Your task to perform on an android device: turn on javascript in the chrome app Image 0: 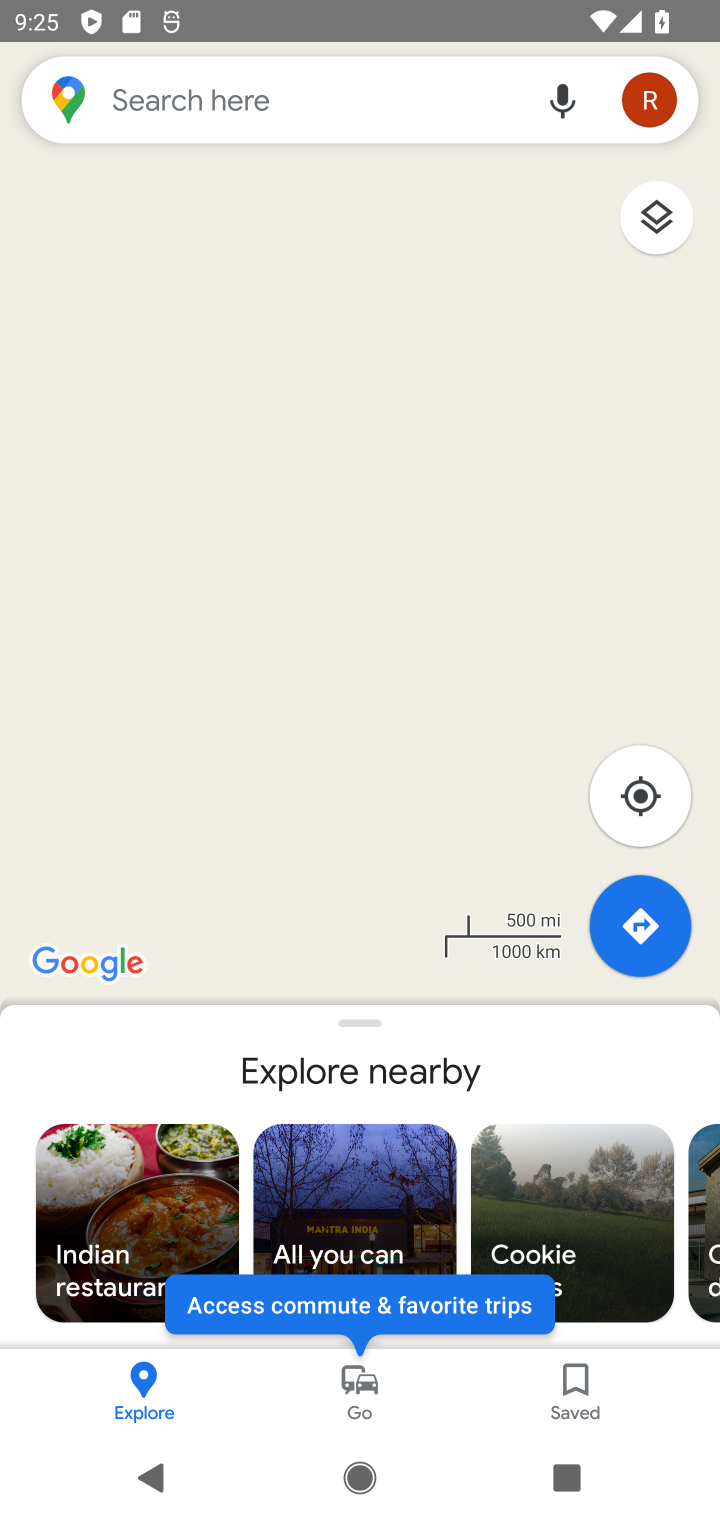
Step 0: press home button
Your task to perform on an android device: turn on javascript in the chrome app Image 1: 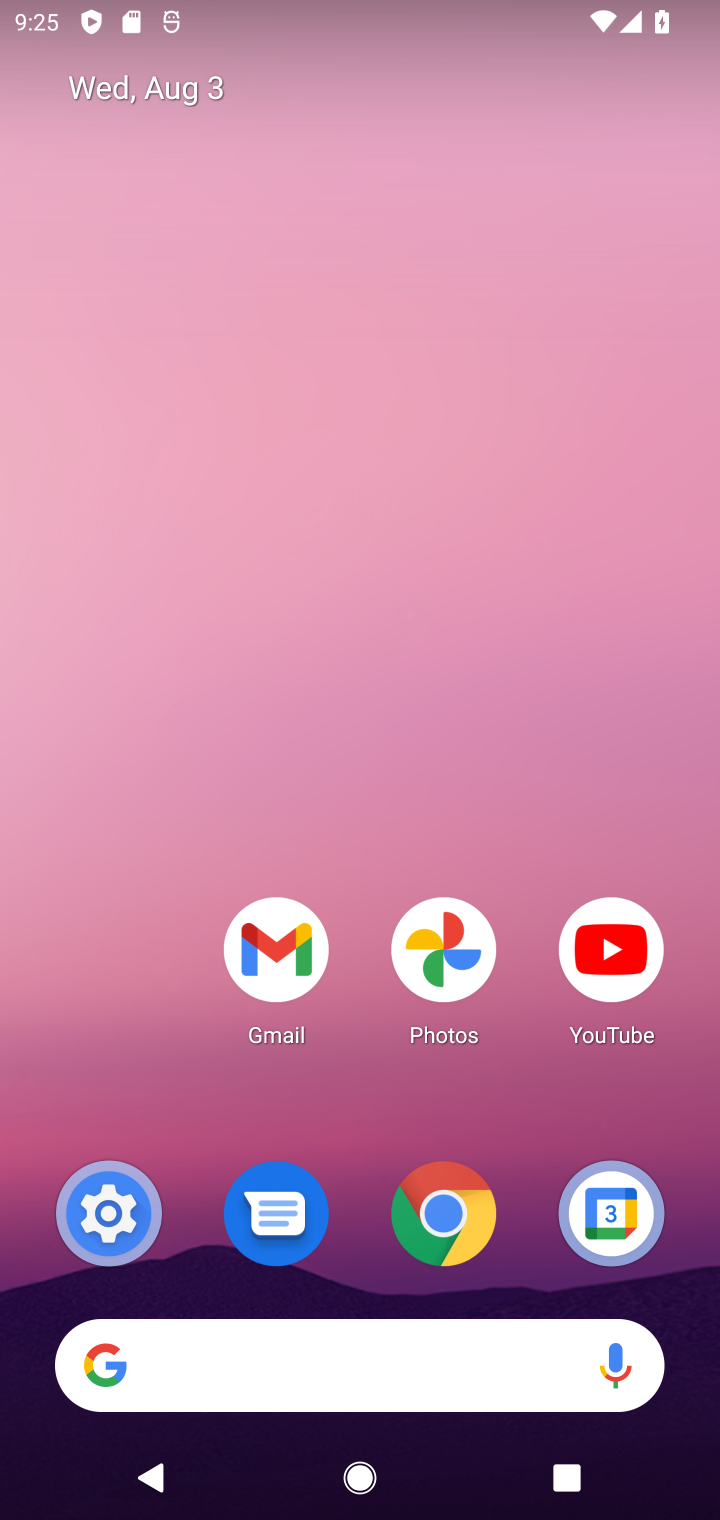
Step 1: click (97, 1206)
Your task to perform on an android device: turn on javascript in the chrome app Image 2: 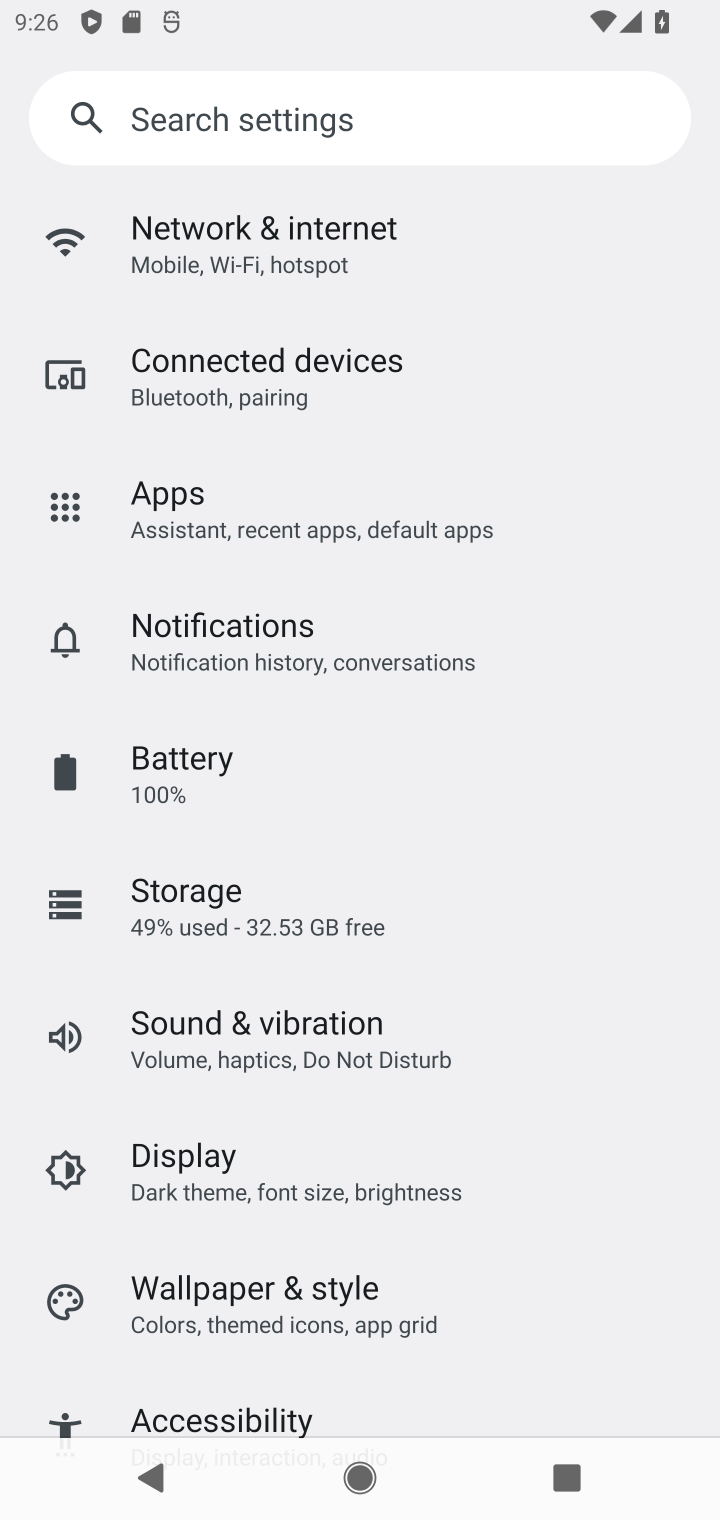
Step 2: press home button
Your task to perform on an android device: turn on javascript in the chrome app Image 3: 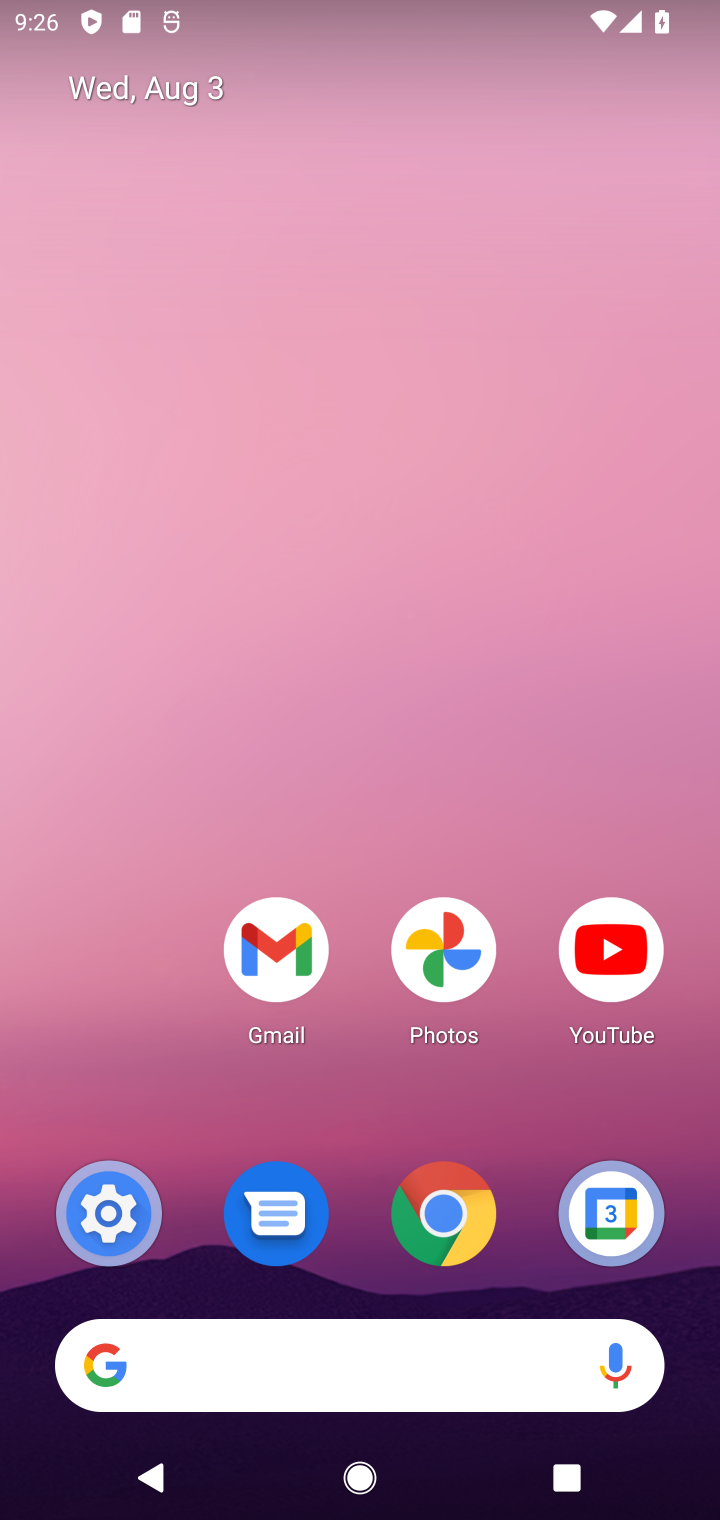
Step 3: click (459, 1189)
Your task to perform on an android device: turn on javascript in the chrome app Image 4: 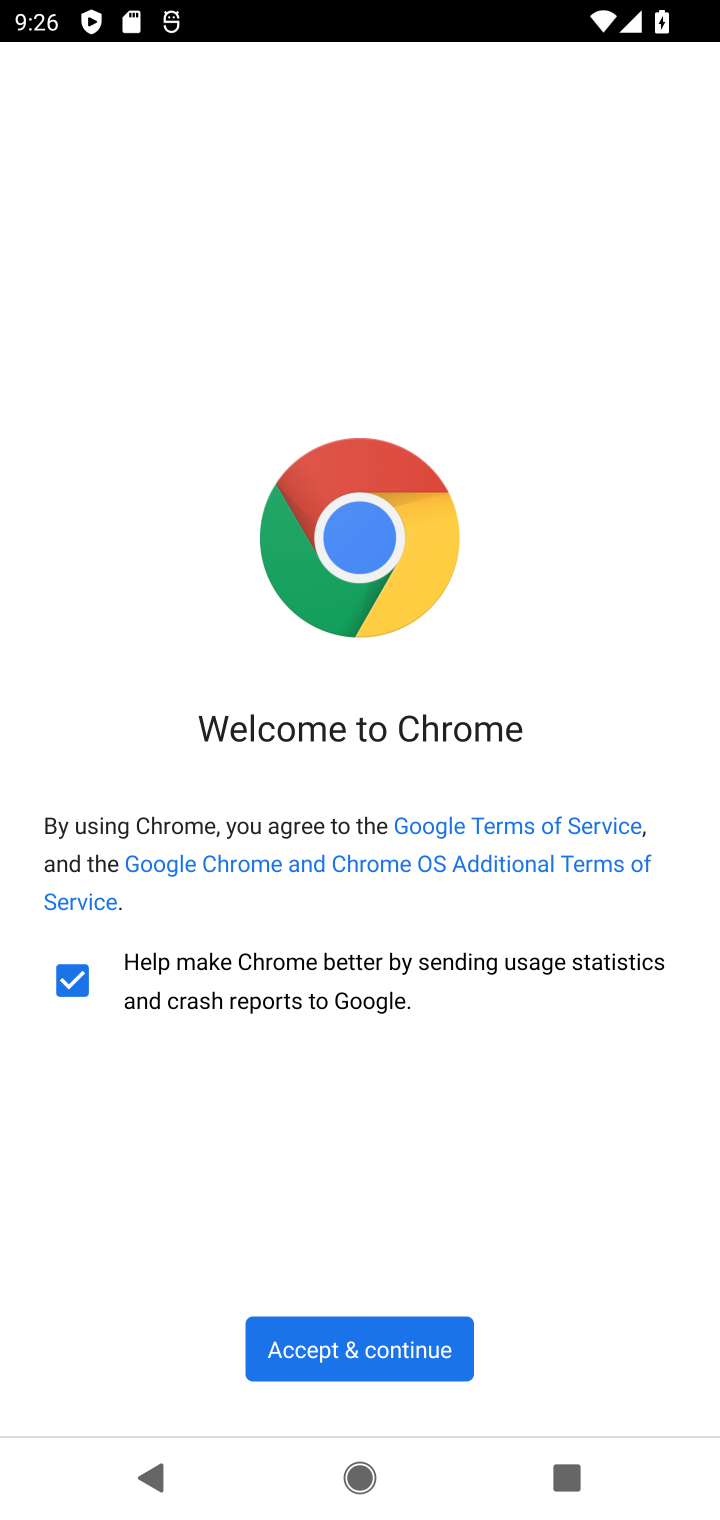
Step 4: click (367, 1348)
Your task to perform on an android device: turn on javascript in the chrome app Image 5: 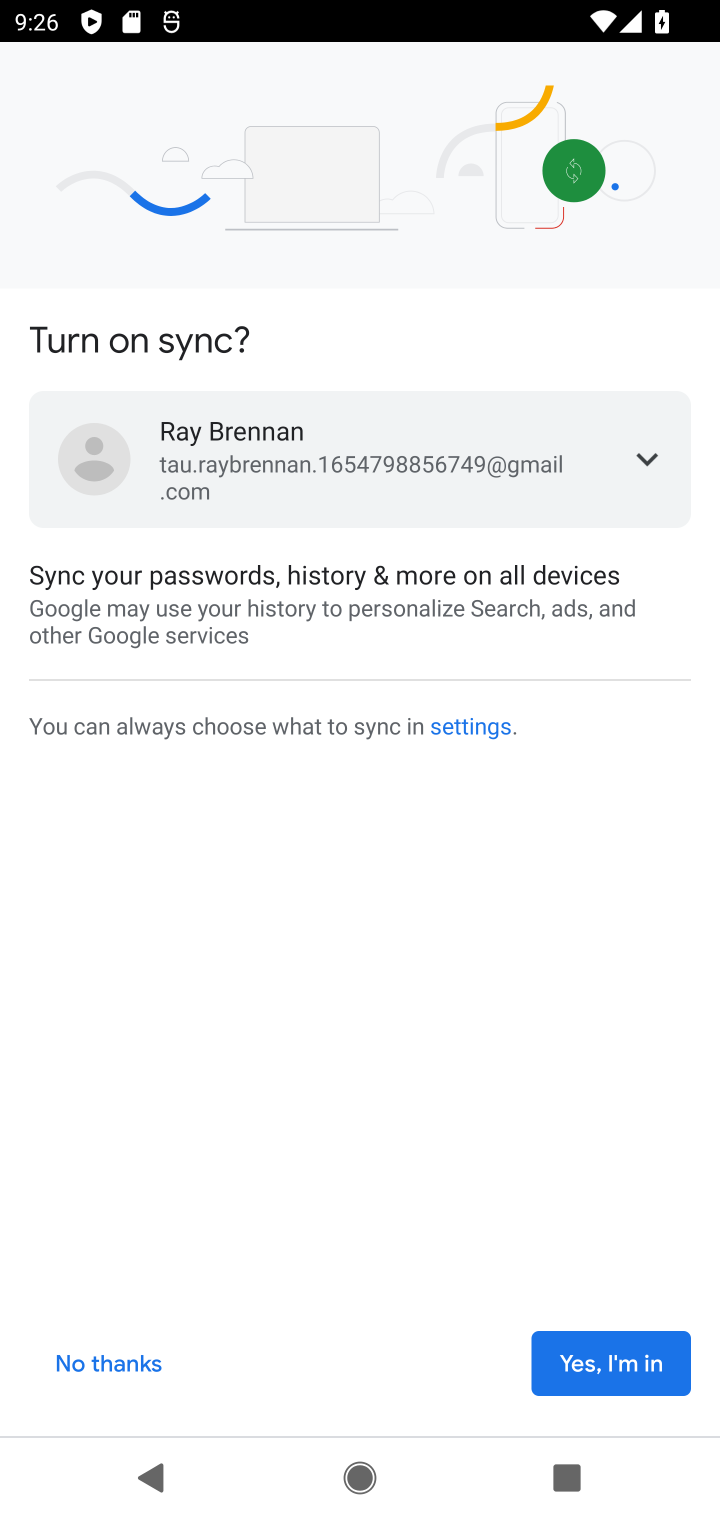
Step 5: click (563, 1378)
Your task to perform on an android device: turn on javascript in the chrome app Image 6: 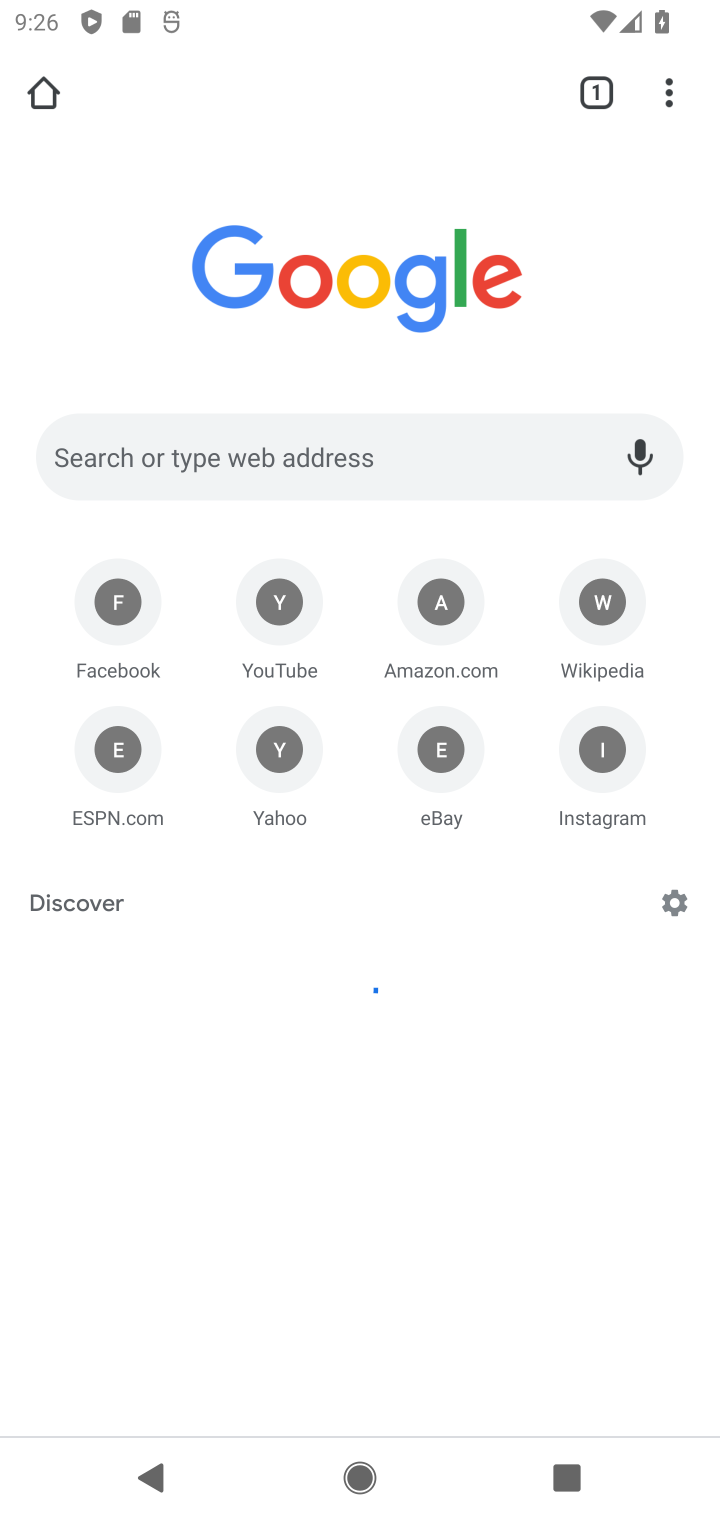
Step 6: click (636, 1365)
Your task to perform on an android device: turn on javascript in the chrome app Image 7: 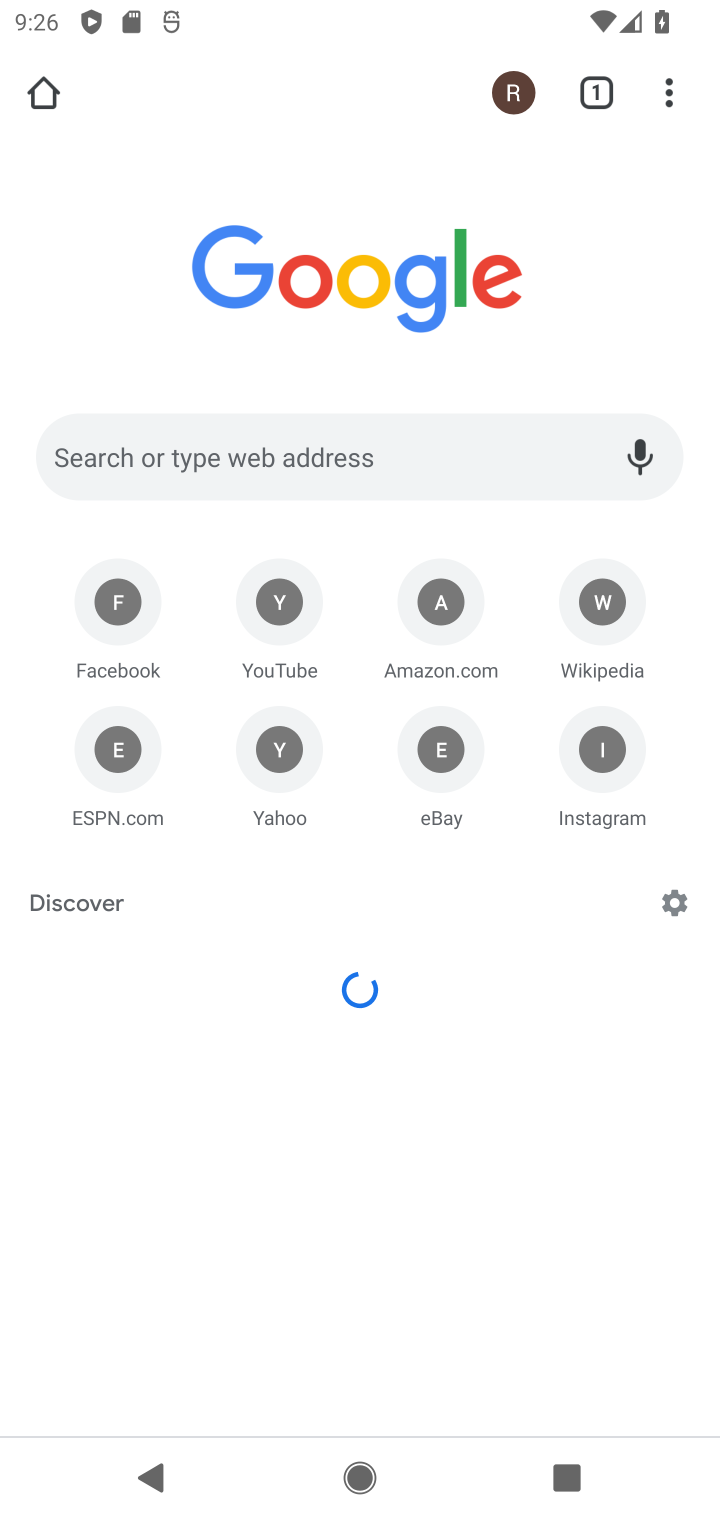
Step 7: click (683, 88)
Your task to perform on an android device: turn on javascript in the chrome app Image 8: 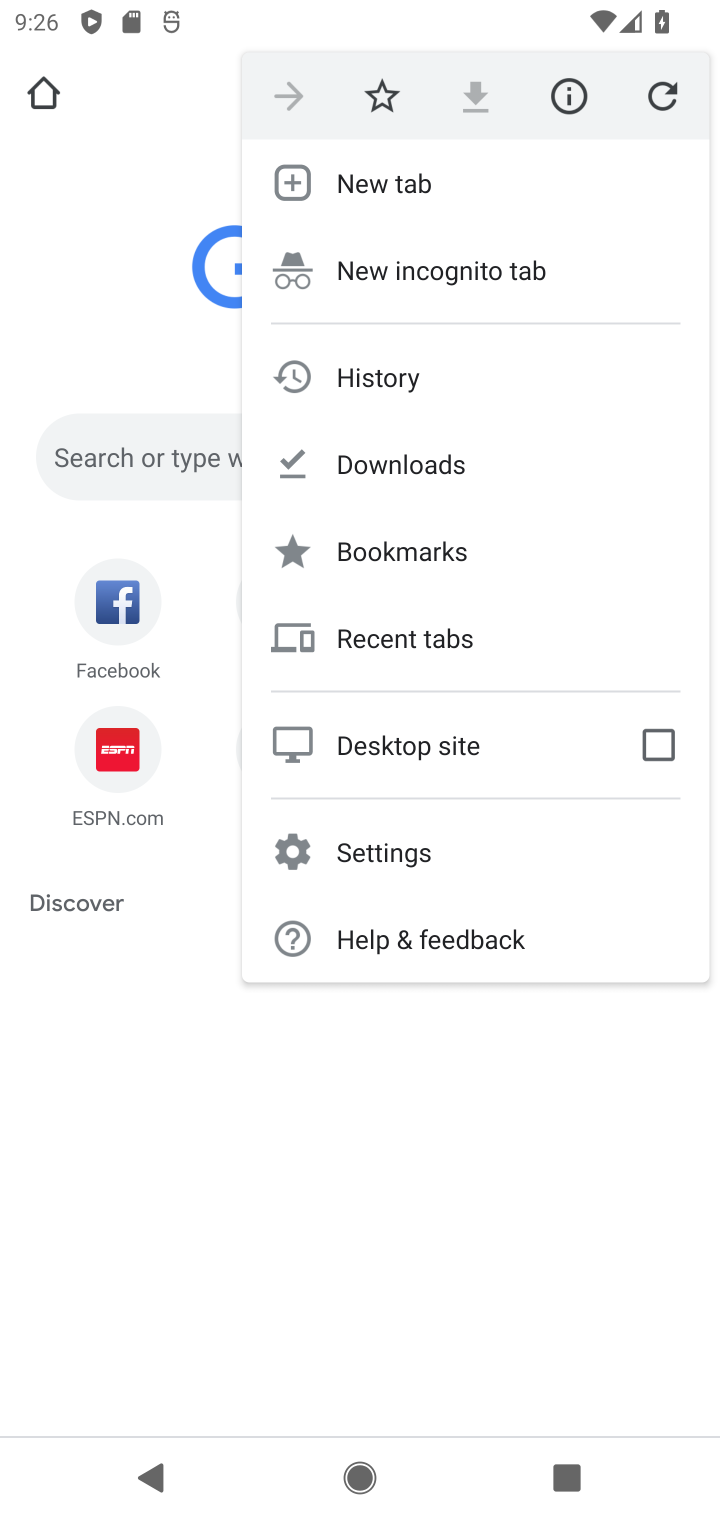
Step 8: click (354, 859)
Your task to perform on an android device: turn on javascript in the chrome app Image 9: 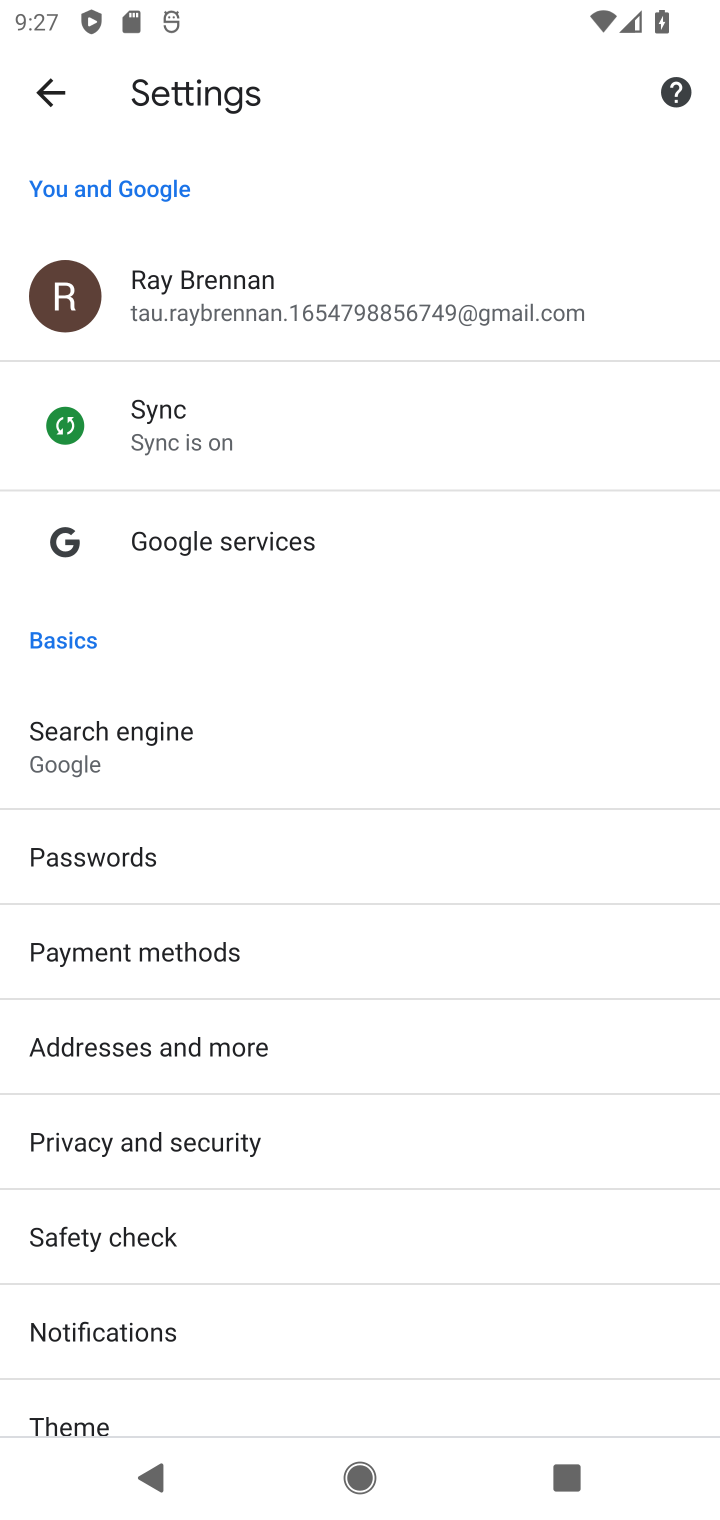
Step 9: drag from (240, 671) to (254, 261)
Your task to perform on an android device: turn on javascript in the chrome app Image 10: 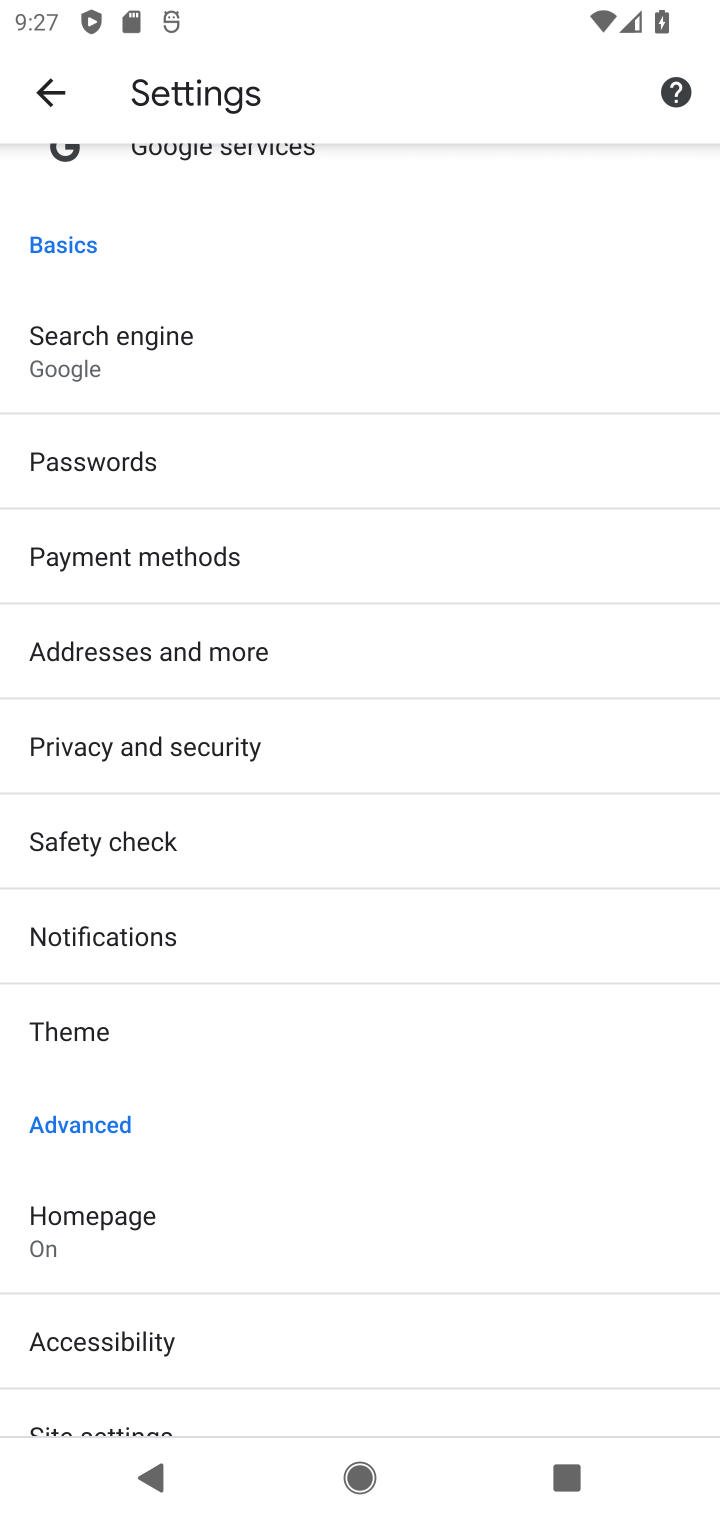
Step 10: drag from (161, 1140) to (222, 625)
Your task to perform on an android device: turn on javascript in the chrome app Image 11: 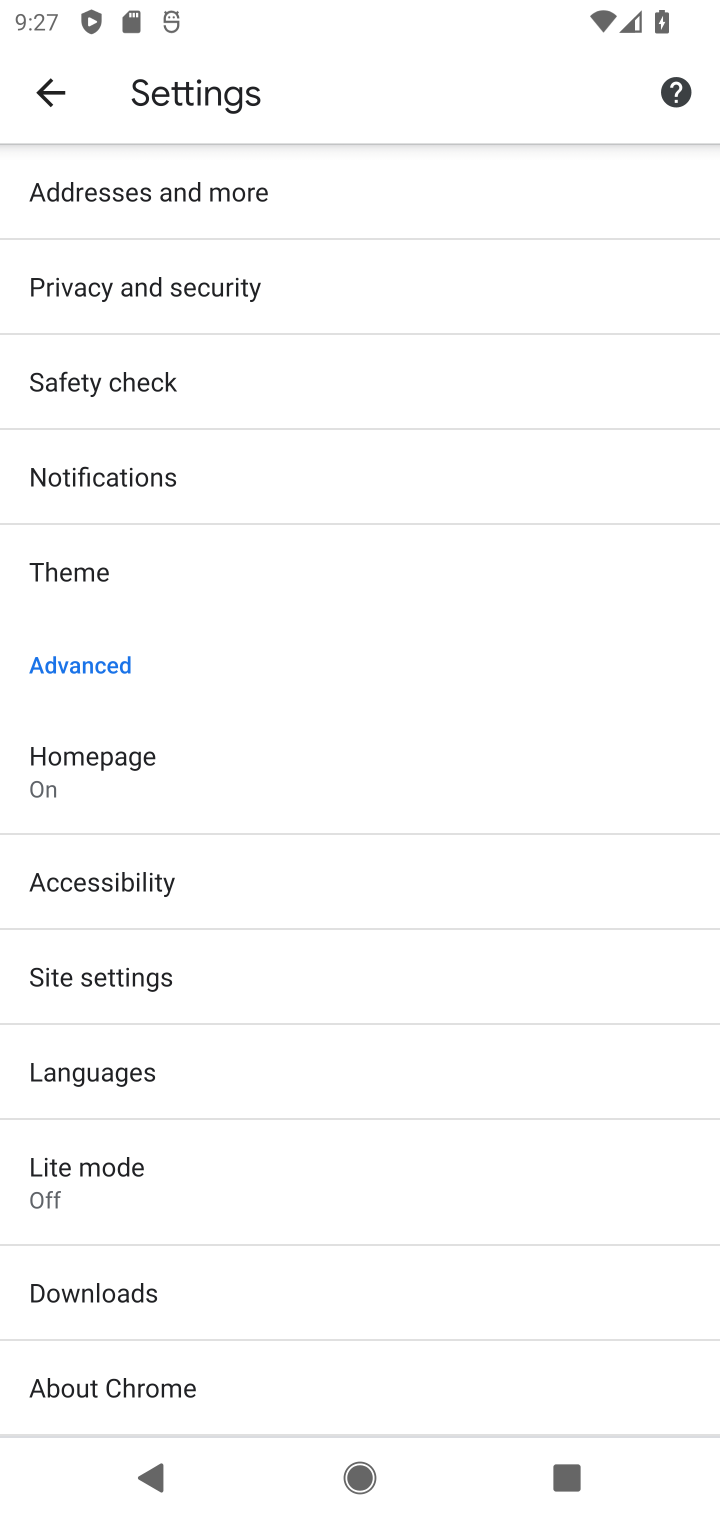
Step 11: click (173, 983)
Your task to perform on an android device: turn on javascript in the chrome app Image 12: 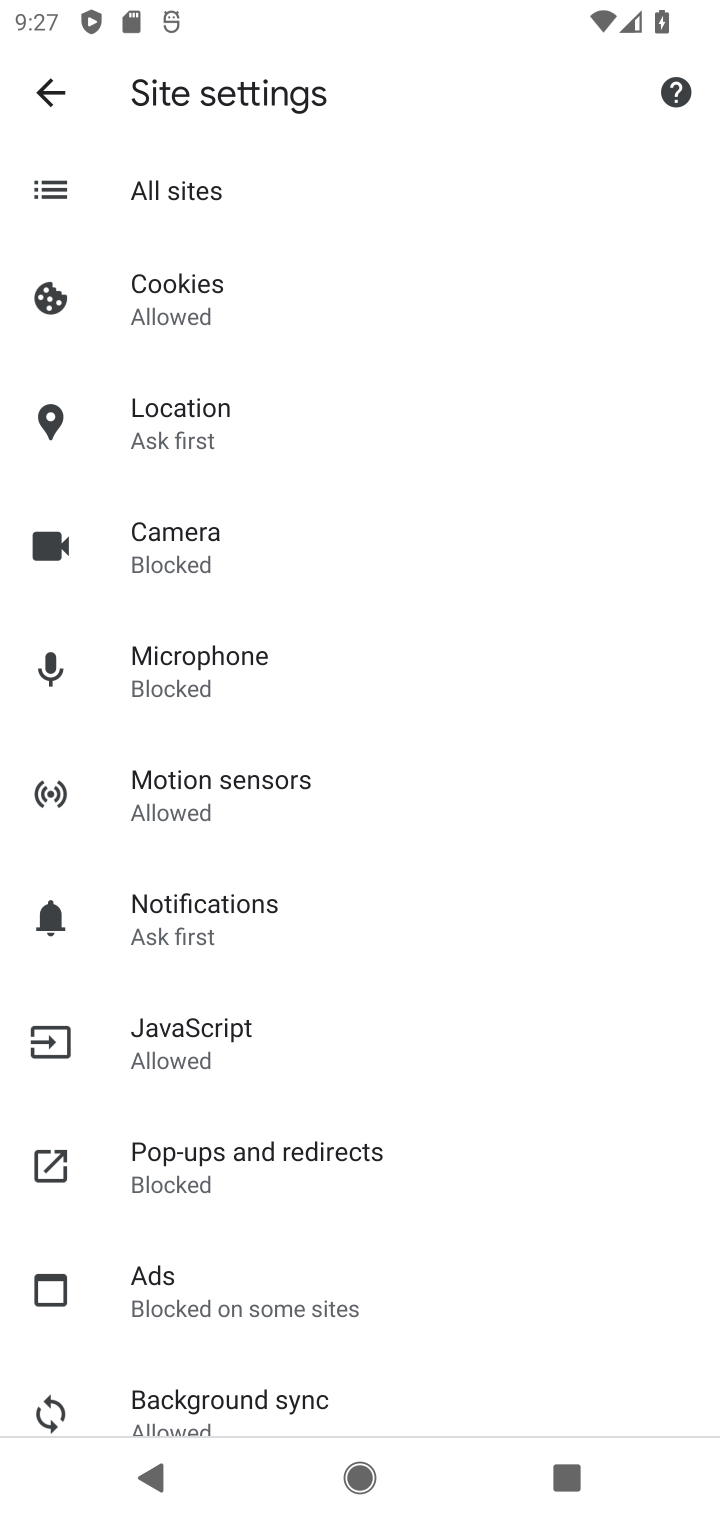
Step 12: click (248, 1011)
Your task to perform on an android device: turn on javascript in the chrome app Image 13: 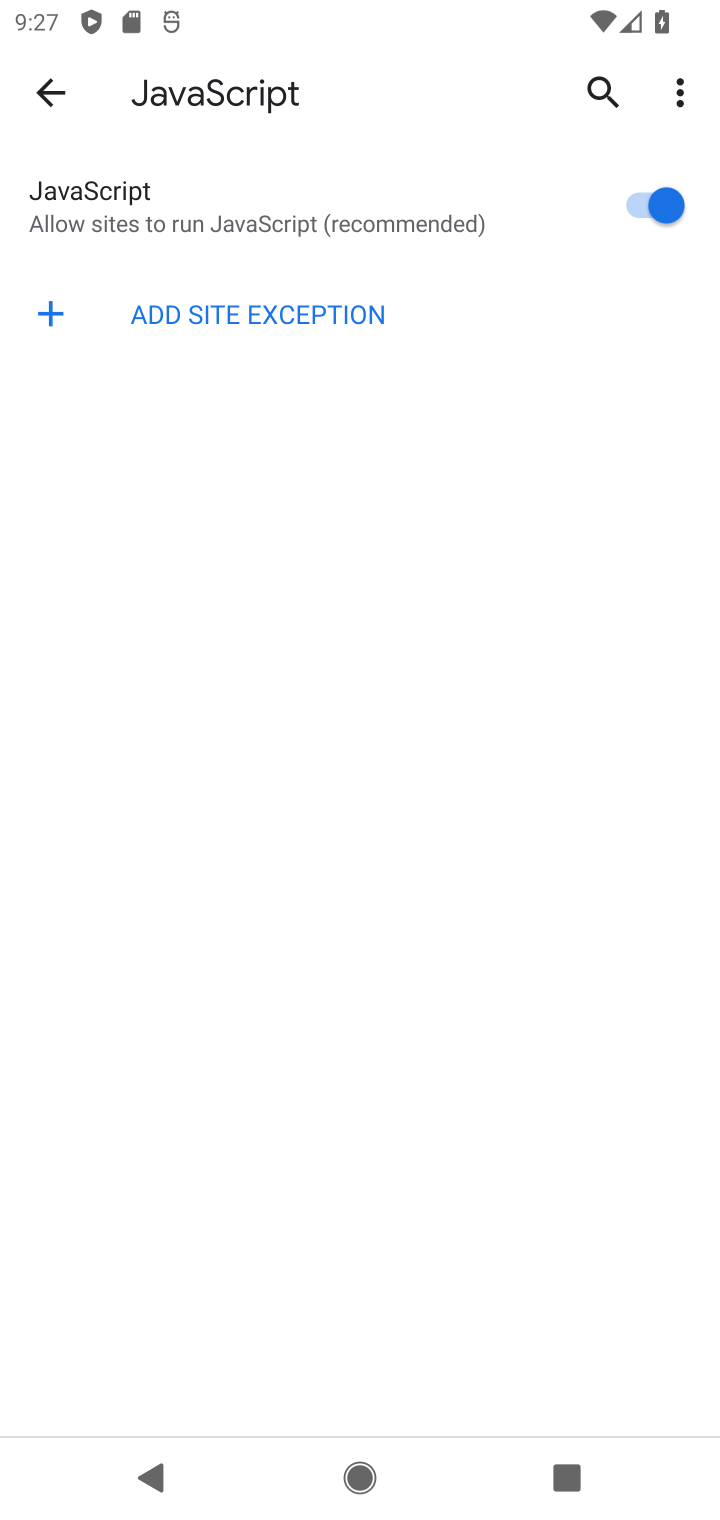
Step 13: task complete